Your task to perform on an android device: Do I have any events tomorrow? Image 0: 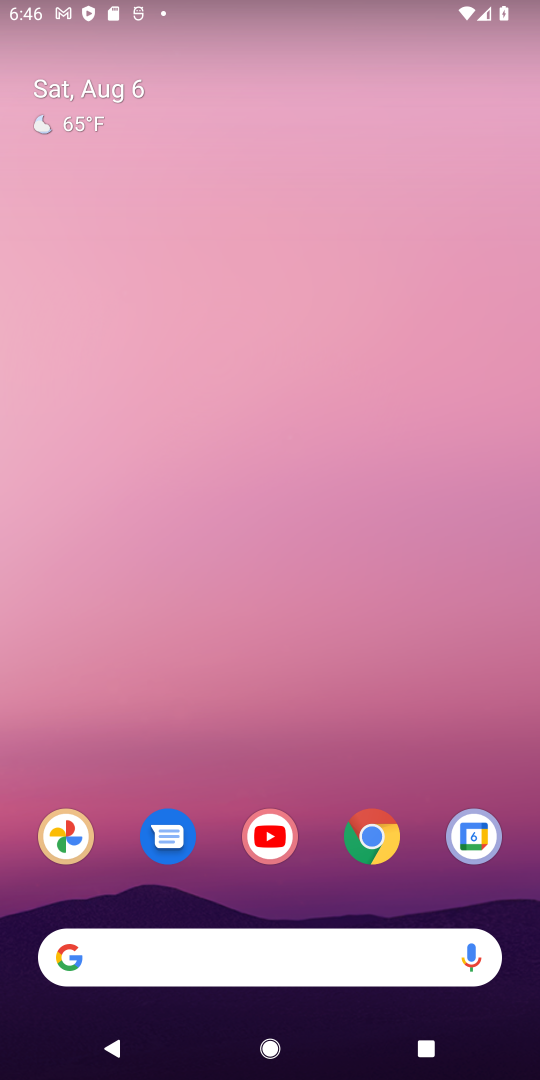
Step 0: drag from (439, 901) to (180, 19)
Your task to perform on an android device: Do I have any events tomorrow? Image 1: 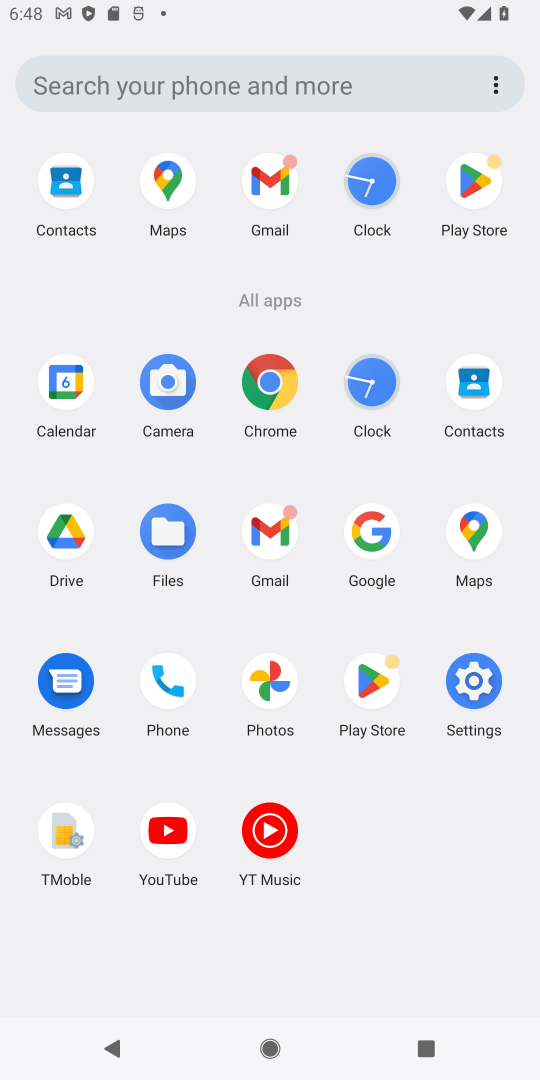
Step 1: click (62, 394)
Your task to perform on an android device: Do I have any events tomorrow? Image 2: 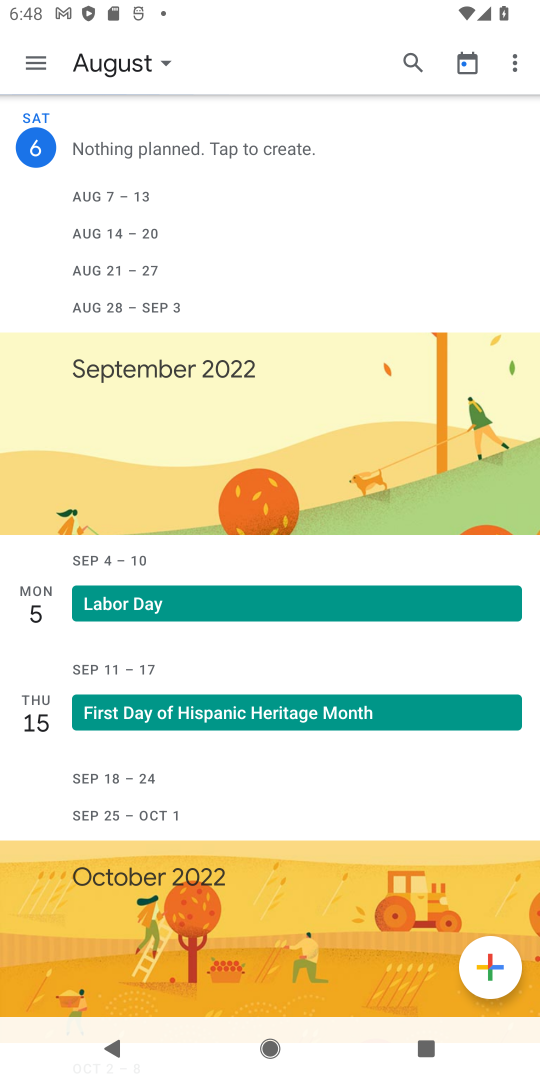
Step 2: task complete